Your task to perform on an android device: turn off smart reply in the gmail app Image 0: 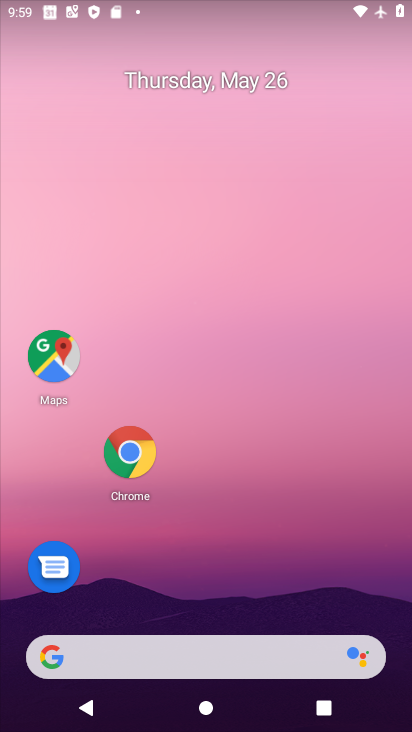
Step 0: press home button
Your task to perform on an android device: turn off smart reply in the gmail app Image 1: 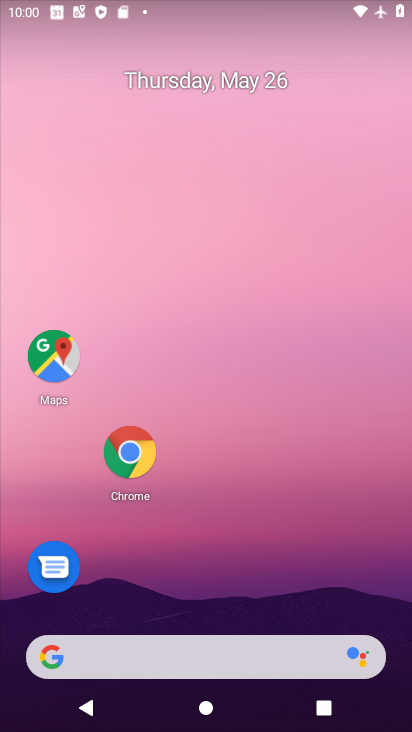
Step 1: drag from (186, 657) to (383, 88)
Your task to perform on an android device: turn off smart reply in the gmail app Image 2: 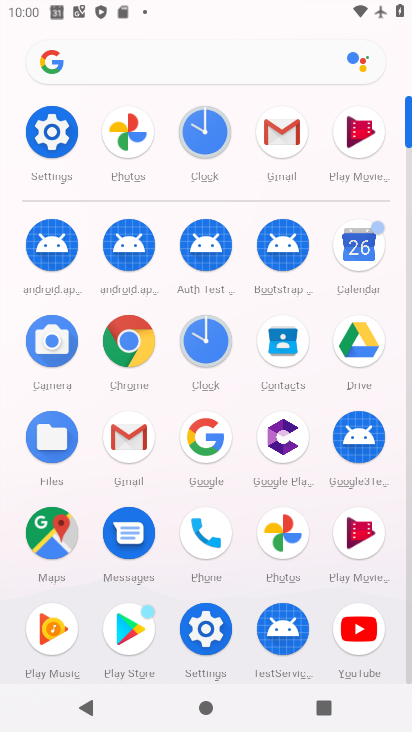
Step 2: click (285, 145)
Your task to perform on an android device: turn off smart reply in the gmail app Image 3: 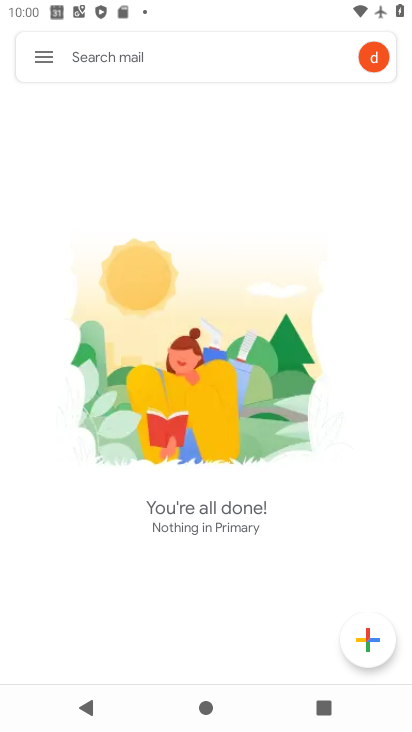
Step 3: click (35, 60)
Your task to perform on an android device: turn off smart reply in the gmail app Image 4: 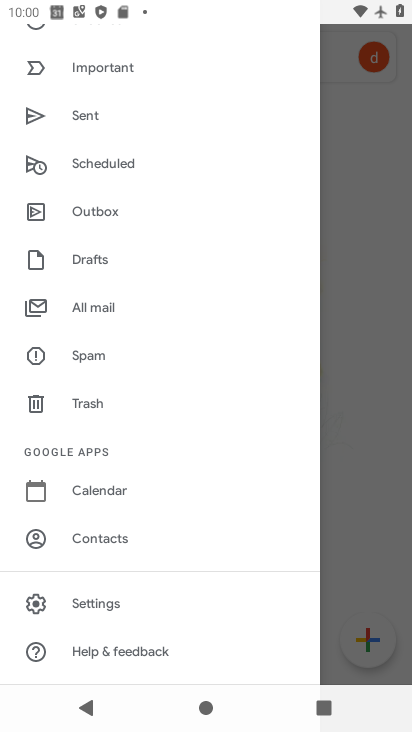
Step 4: click (95, 607)
Your task to perform on an android device: turn off smart reply in the gmail app Image 5: 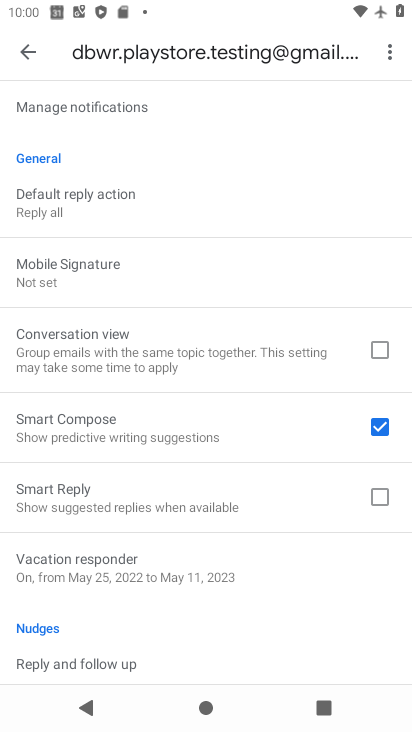
Step 5: task complete